Your task to perform on an android device: uninstall "Facebook Messenger" Image 0: 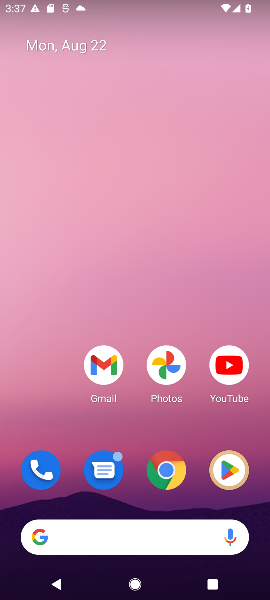
Step 0: drag from (114, 474) to (146, 24)
Your task to perform on an android device: uninstall "Facebook Messenger" Image 1: 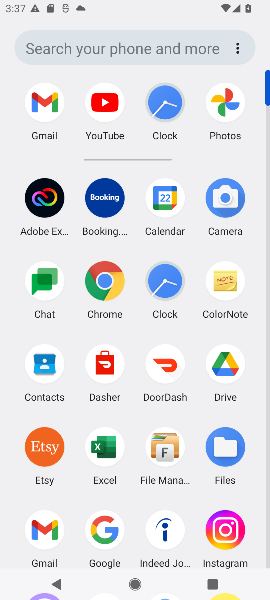
Step 1: drag from (119, 491) to (150, 99)
Your task to perform on an android device: uninstall "Facebook Messenger" Image 2: 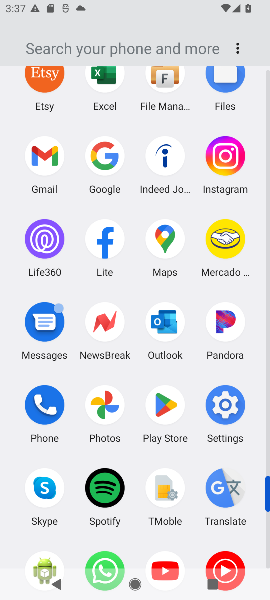
Step 2: click (161, 411)
Your task to perform on an android device: uninstall "Facebook Messenger" Image 3: 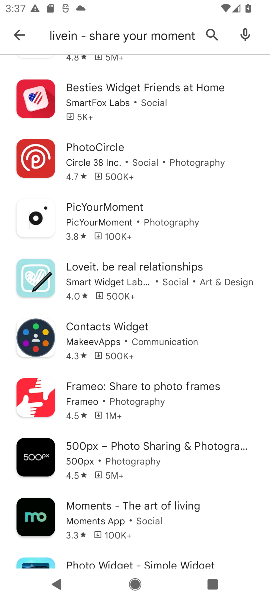
Step 3: click (6, 24)
Your task to perform on an android device: uninstall "Facebook Messenger" Image 4: 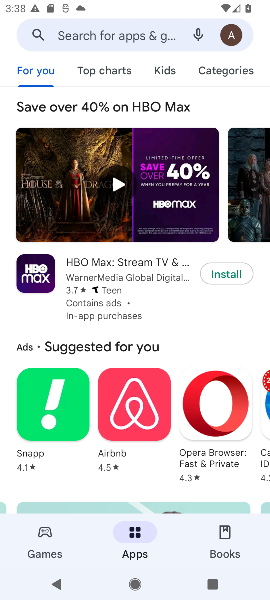
Step 4: click (121, 32)
Your task to perform on an android device: uninstall "Facebook Messenger" Image 5: 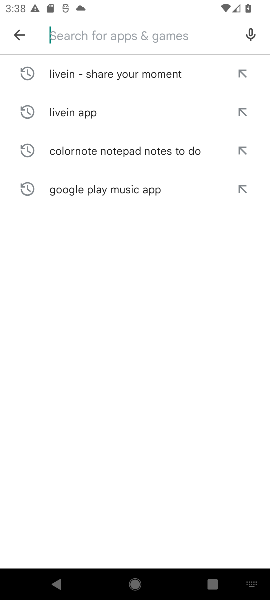
Step 5: type "Facebook Messenger "
Your task to perform on an android device: uninstall "Facebook Messenger" Image 6: 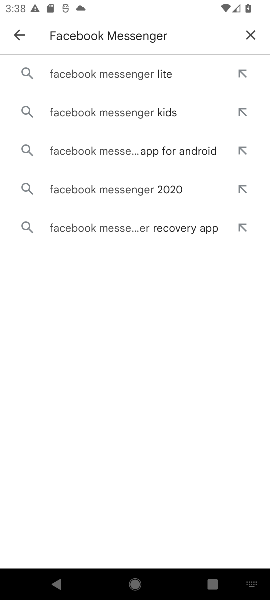
Step 6: click (147, 75)
Your task to perform on an android device: uninstall "Facebook Messenger" Image 7: 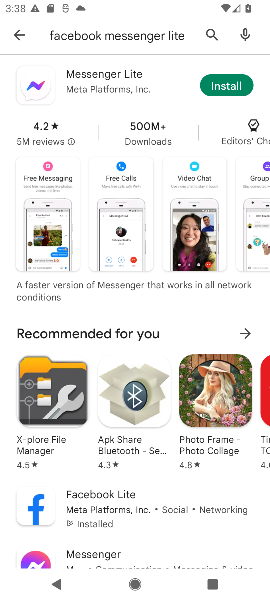
Step 7: click (18, 31)
Your task to perform on an android device: uninstall "Facebook Messenger" Image 8: 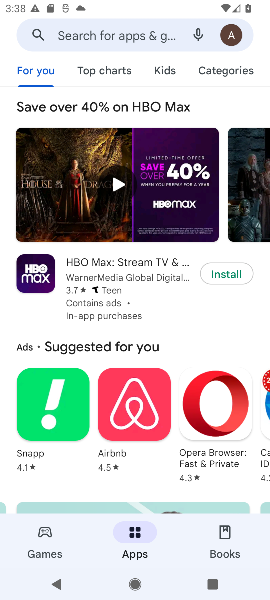
Step 8: click (118, 19)
Your task to perform on an android device: uninstall "Facebook Messenger" Image 9: 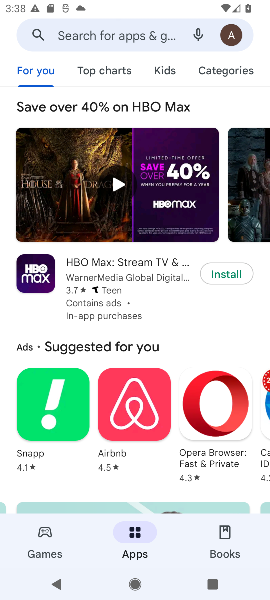
Step 9: click (116, 30)
Your task to perform on an android device: uninstall "Facebook Messenger" Image 10: 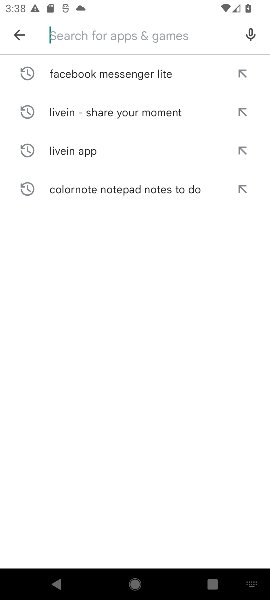
Step 10: click (121, 71)
Your task to perform on an android device: uninstall "Facebook Messenger" Image 11: 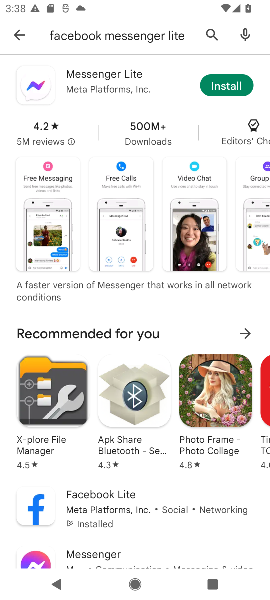
Step 11: click (224, 75)
Your task to perform on an android device: uninstall "Facebook Messenger" Image 12: 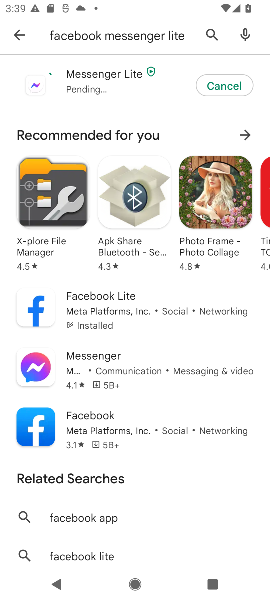
Step 12: click (218, 80)
Your task to perform on an android device: uninstall "Facebook Messenger" Image 13: 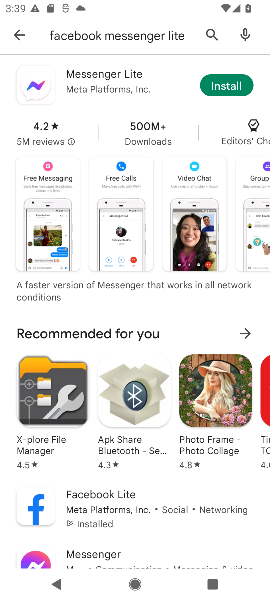
Step 13: task complete